Your task to perform on an android device: change the clock display to digital Image 0: 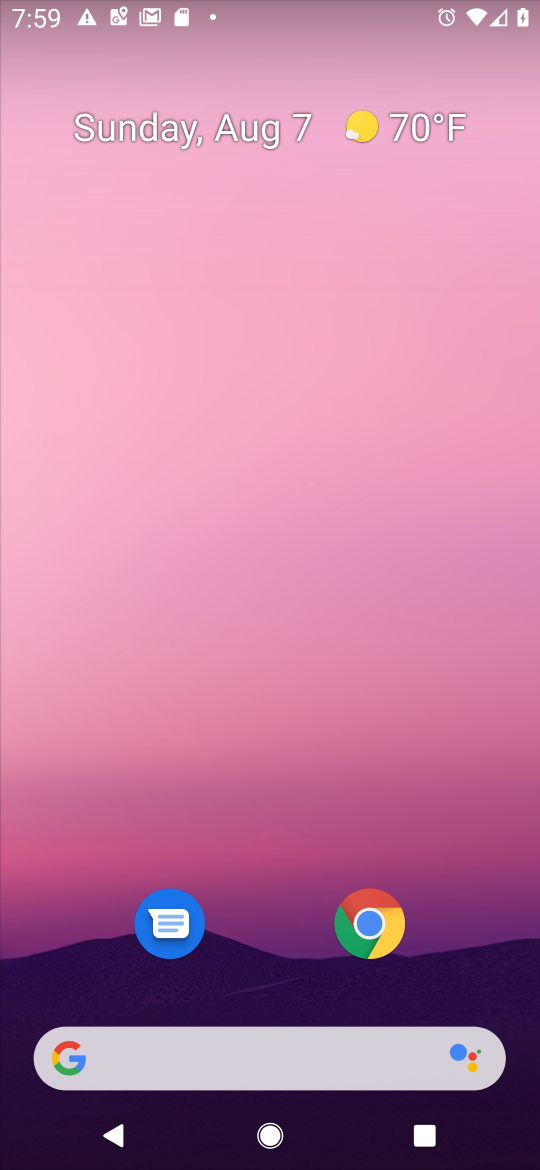
Step 0: drag from (488, 977) to (179, 24)
Your task to perform on an android device: change the clock display to digital Image 1: 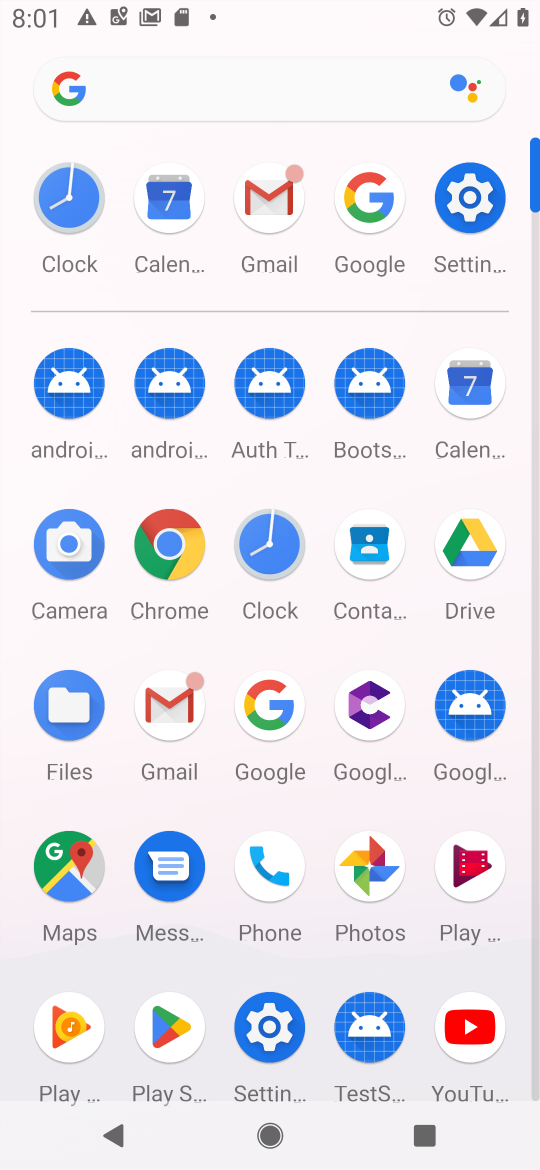
Step 1: click (272, 548)
Your task to perform on an android device: change the clock display to digital Image 2: 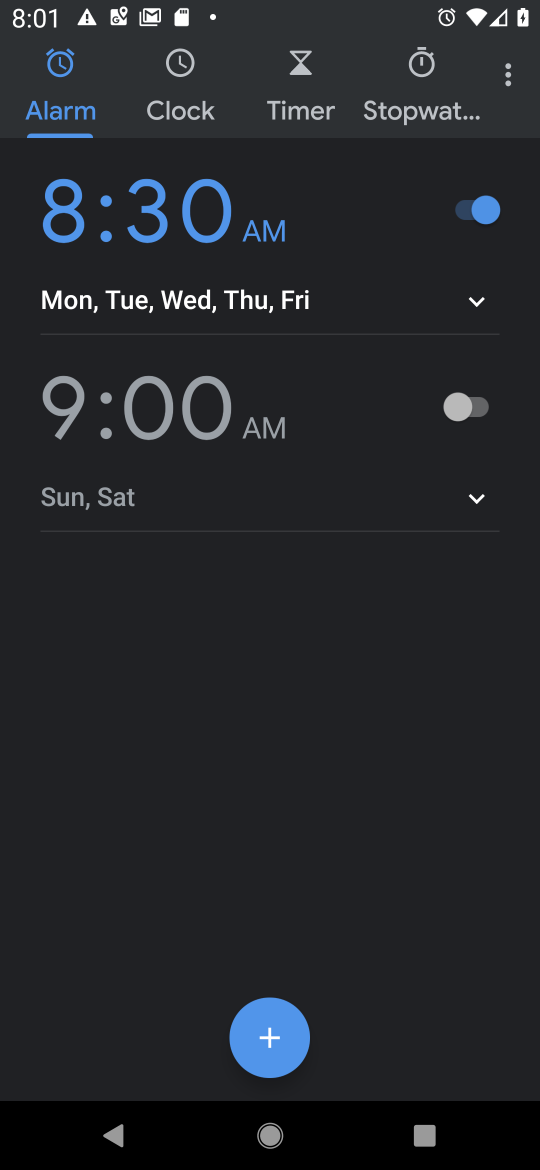
Step 2: click (509, 58)
Your task to perform on an android device: change the clock display to digital Image 3: 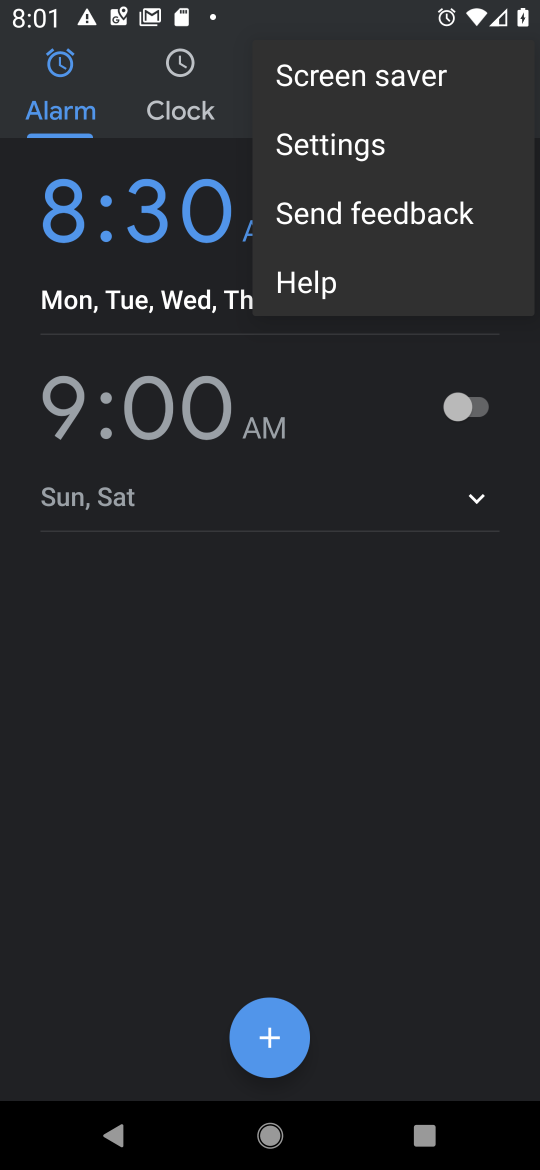
Step 3: click (345, 142)
Your task to perform on an android device: change the clock display to digital Image 4: 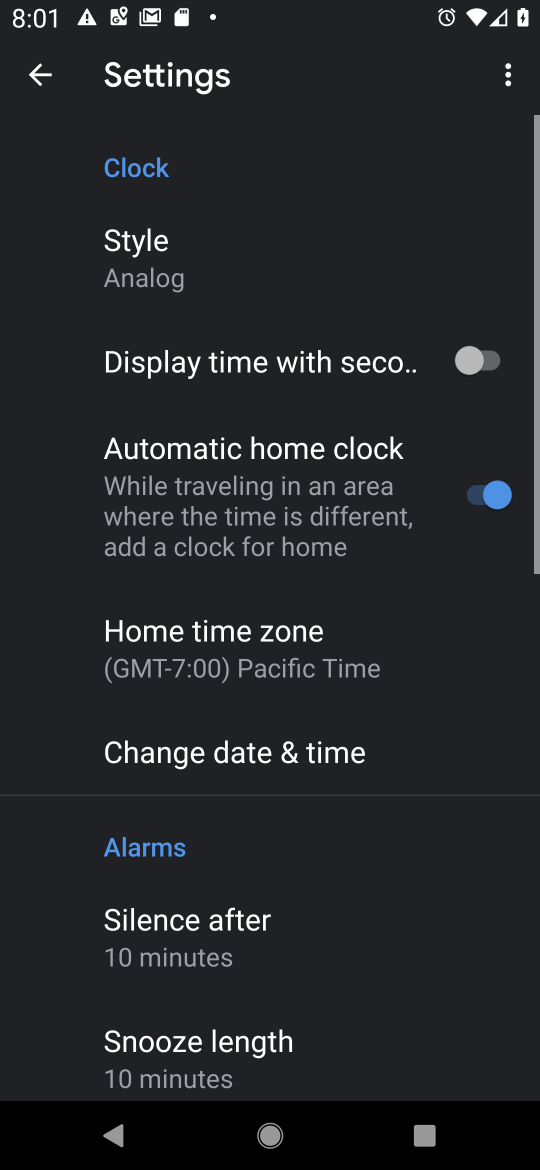
Step 4: click (130, 270)
Your task to perform on an android device: change the clock display to digital Image 5: 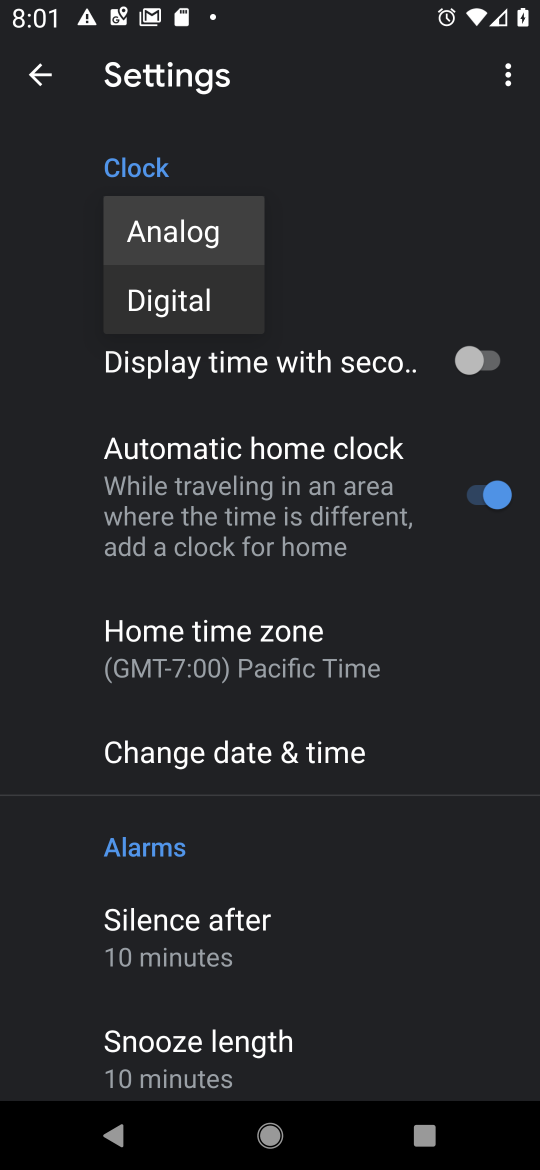
Step 5: click (187, 299)
Your task to perform on an android device: change the clock display to digital Image 6: 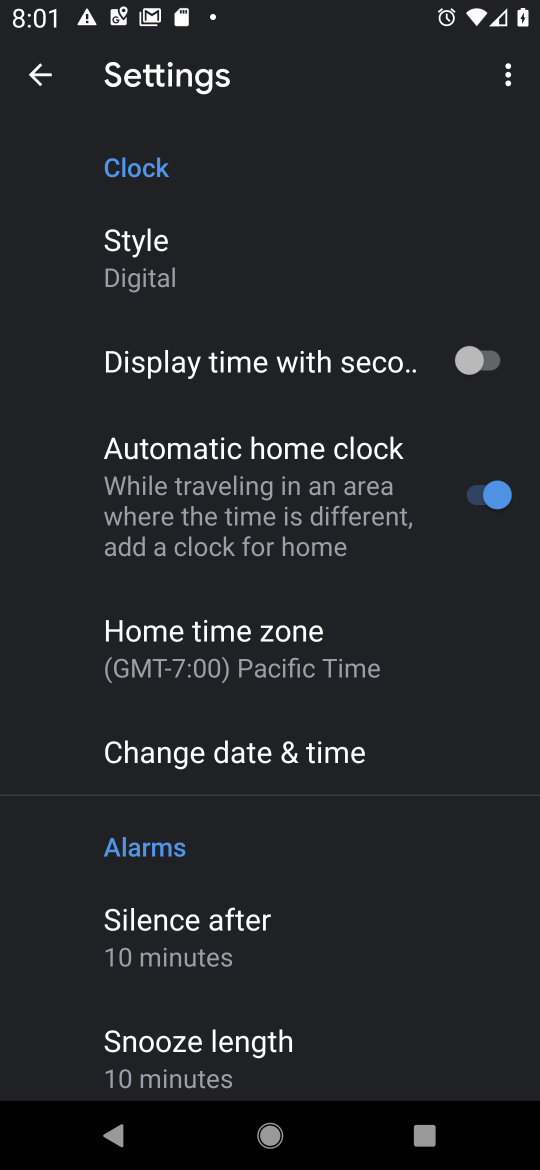
Step 6: task complete